Your task to perform on an android device: See recent photos Image 0: 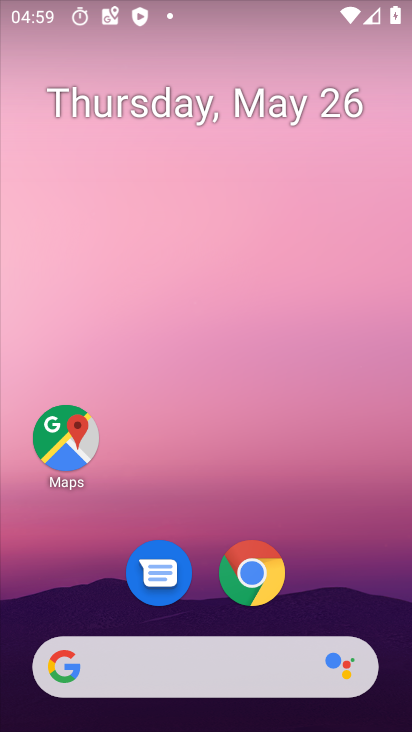
Step 0: drag from (298, 608) to (255, 122)
Your task to perform on an android device: See recent photos Image 1: 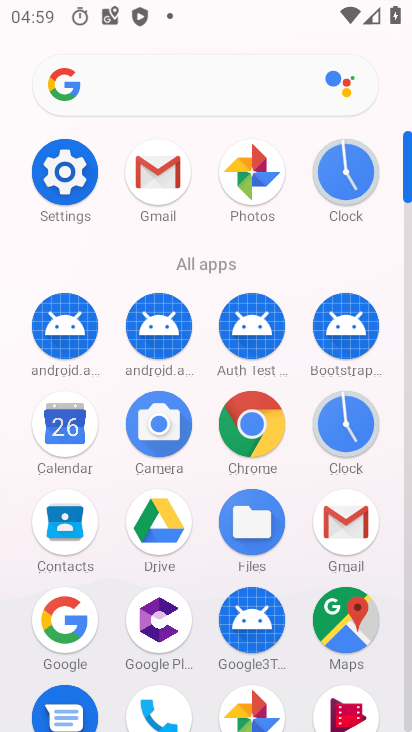
Step 1: click (241, 697)
Your task to perform on an android device: See recent photos Image 2: 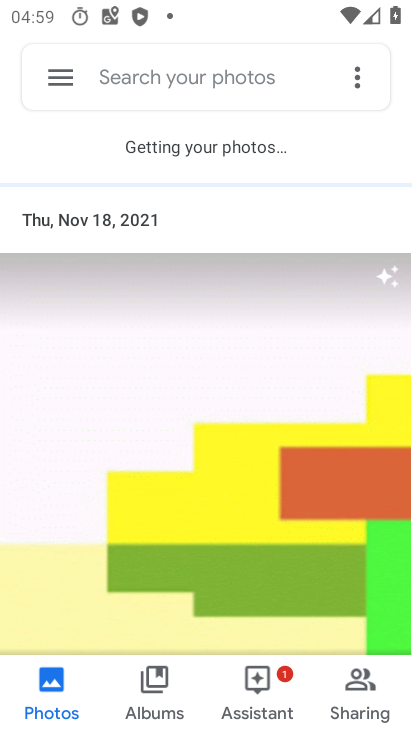
Step 2: click (72, 69)
Your task to perform on an android device: See recent photos Image 3: 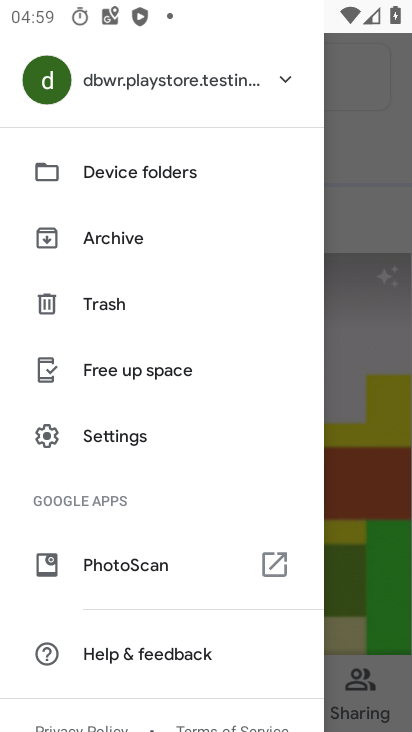
Step 3: task complete